Your task to perform on an android device: open a bookmark in the chrome app Image 0: 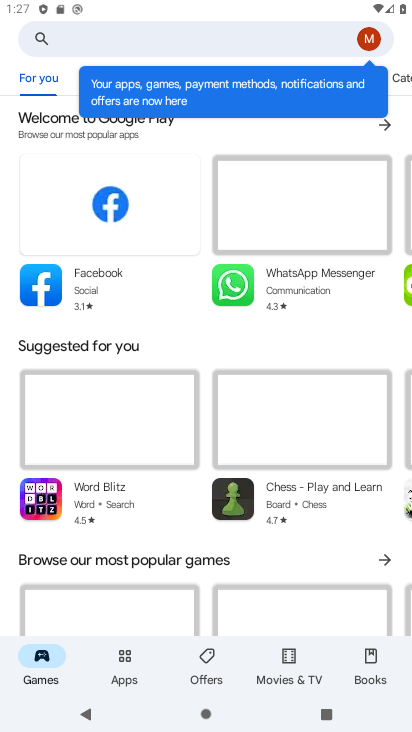
Step 0: press home button
Your task to perform on an android device: open a bookmark in the chrome app Image 1: 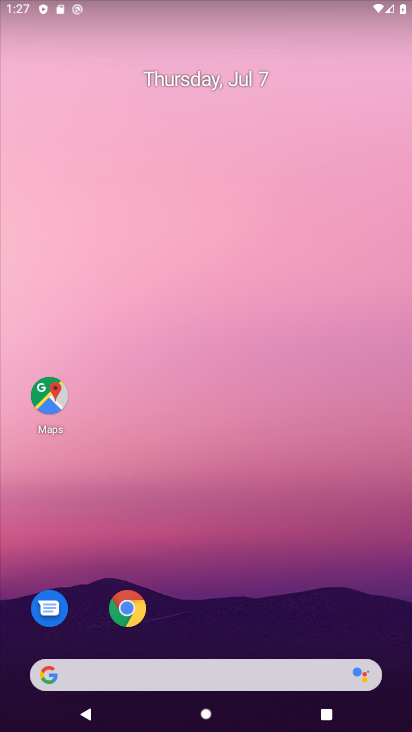
Step 1: drag from (200, 637) to (244, 203)
Your task to perform on an android device: open a bookmark in the chrome app Image 2: 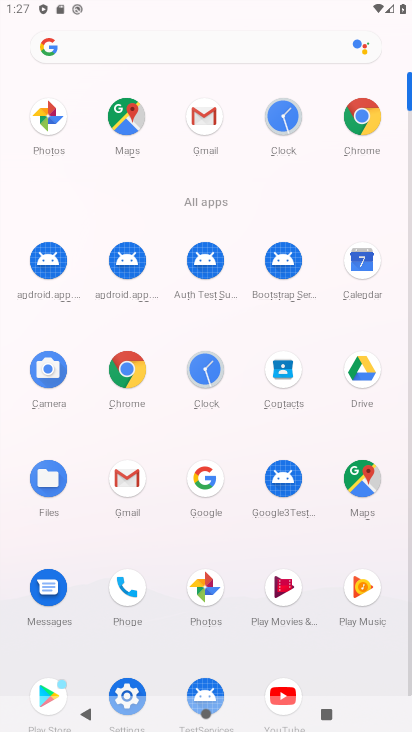
Step 2: click (117, 370)
Your task to perform on an android device: open a bookmark in the chrome app Image 3: 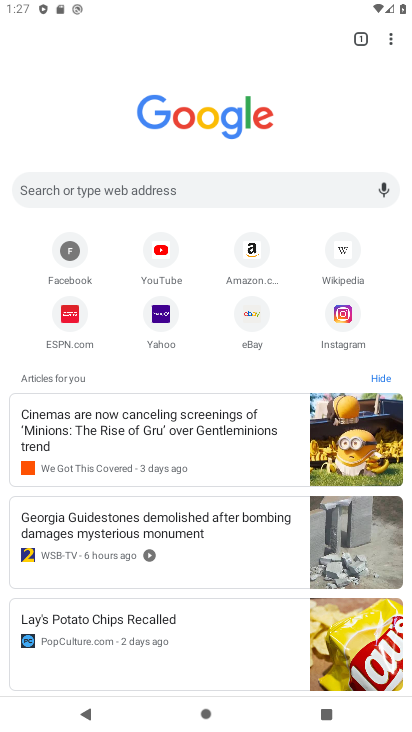
Step 3: task complete